Your task to perform on an android device: Open CNN.com Image 0: 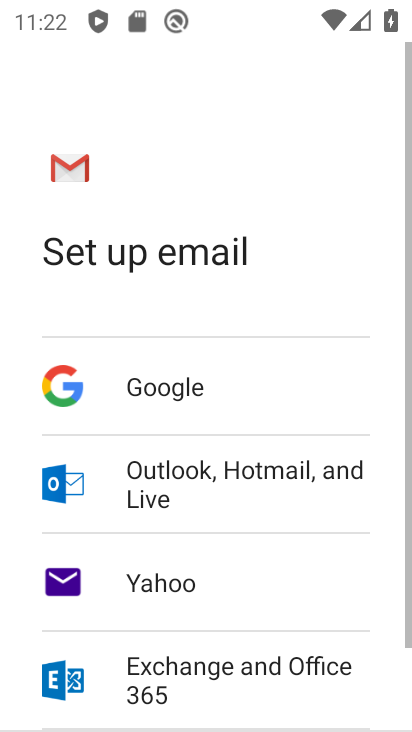
Step 0: press home button
Your task to perform on an android device: Open CNN.com Image 1: 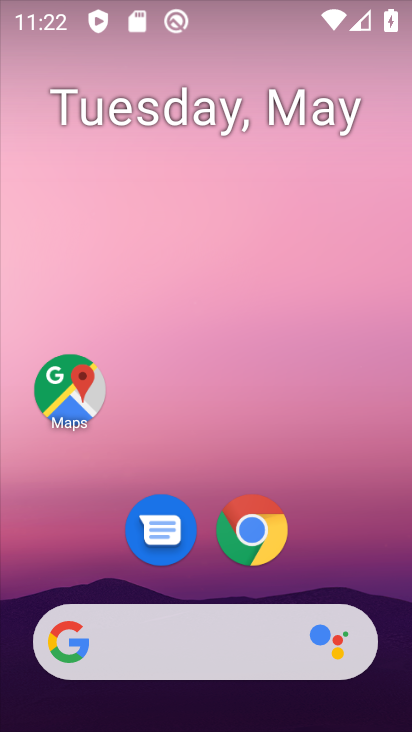
Step 1: click (243, 529)
Your task to perform on an android device: Open CNN.com Image 2: 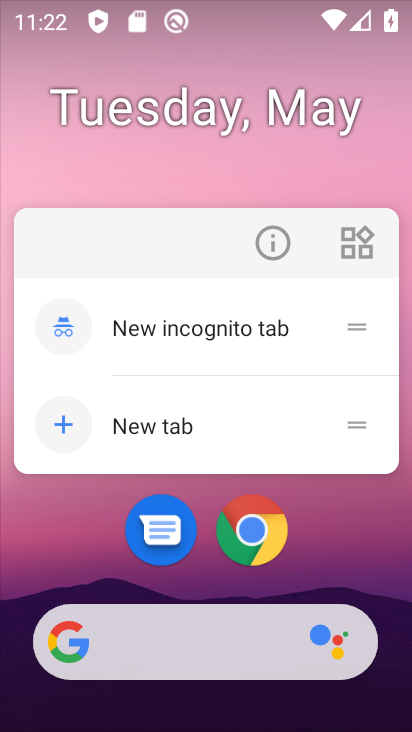
Step 2: click (254, 542)
Your task to perform on an android device: Open CNN.com Image 3: 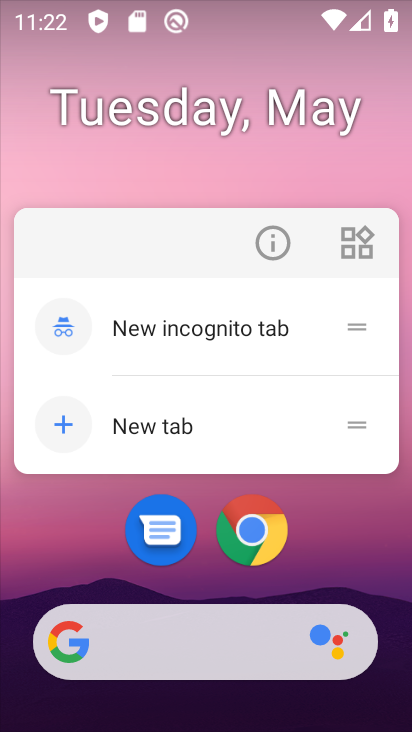
Step 3: click (260, 247)
Your task to perform on an android device: Open CNN.com Image 4: 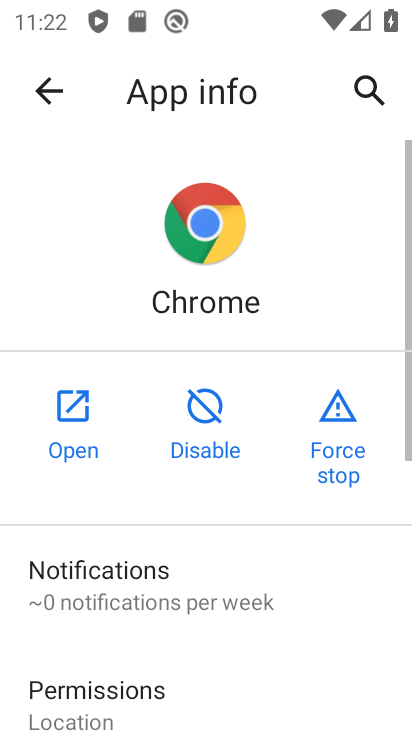
Step 4: click (90, 417)
Your task to perform on an android device: Open CNN.com Image 5: 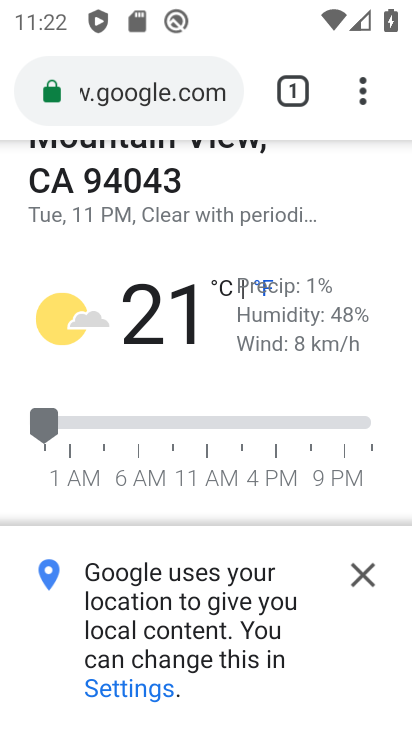
Step 5: click (131, 100)
Your task to perform on an android device: Open CNN.com Image 6: 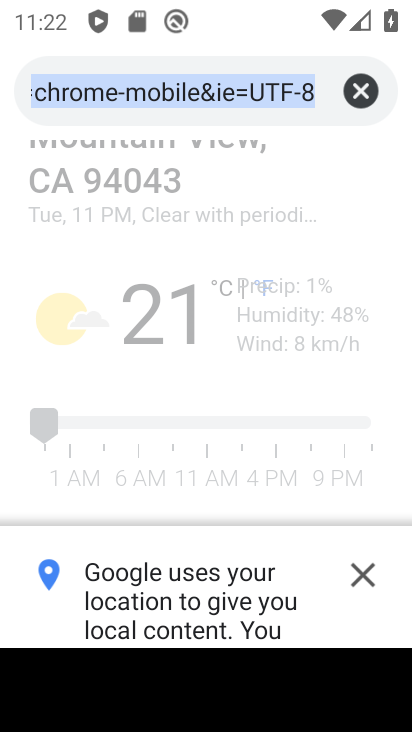
Step 6: type "CNN.com"
Your task to perform on an android device: Open CNN.com Image 7: 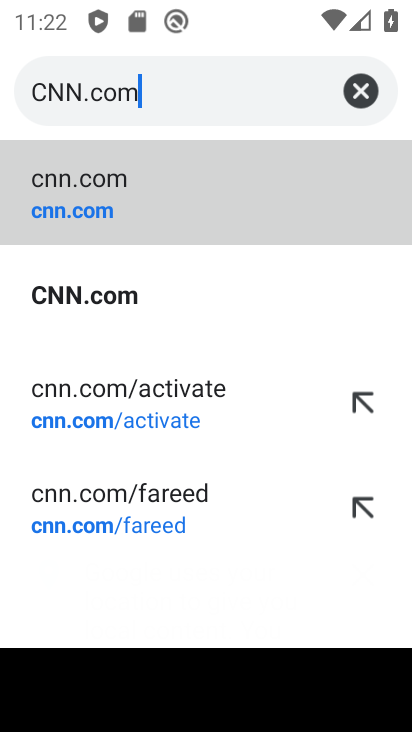
Step 7: click (98, 300)
Your task to perform on an android device: Open CNN.com Image 8: 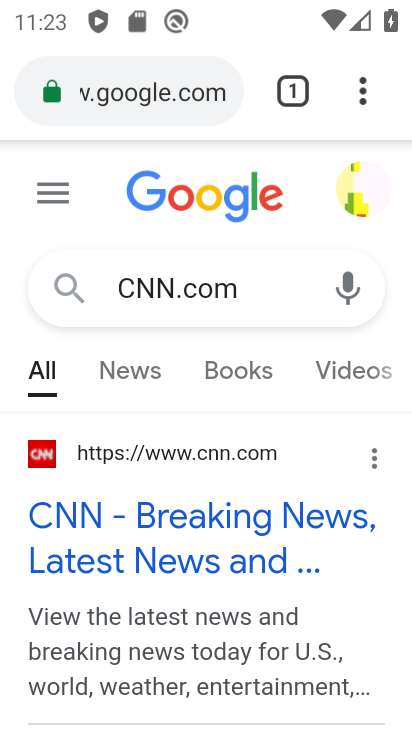
Step 8: task complete